Your task to perform on an android device: How do I get to the nearest Burger King? Image 0: 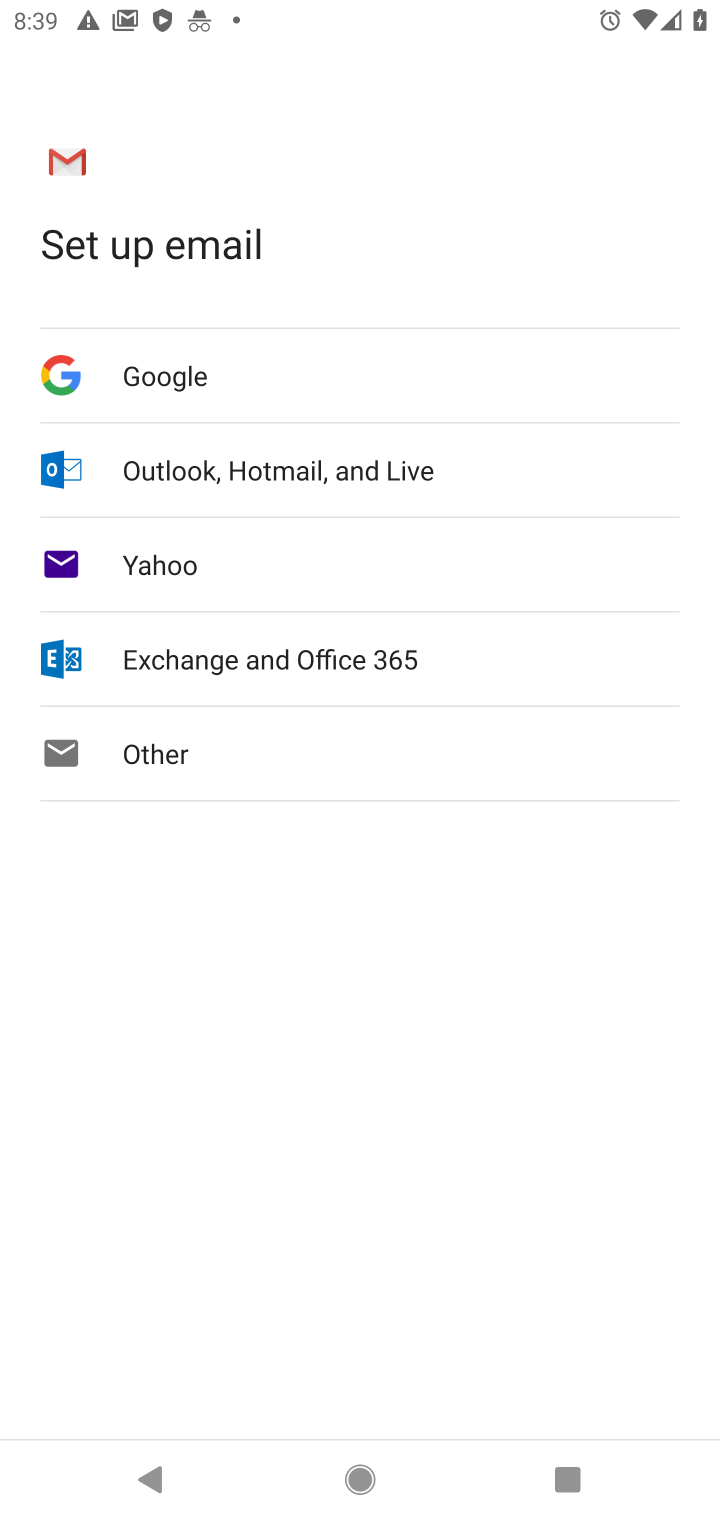
Step 0: press home button
Your task to perform on an android device: How do I get to the nearest Burger King? Image 1: 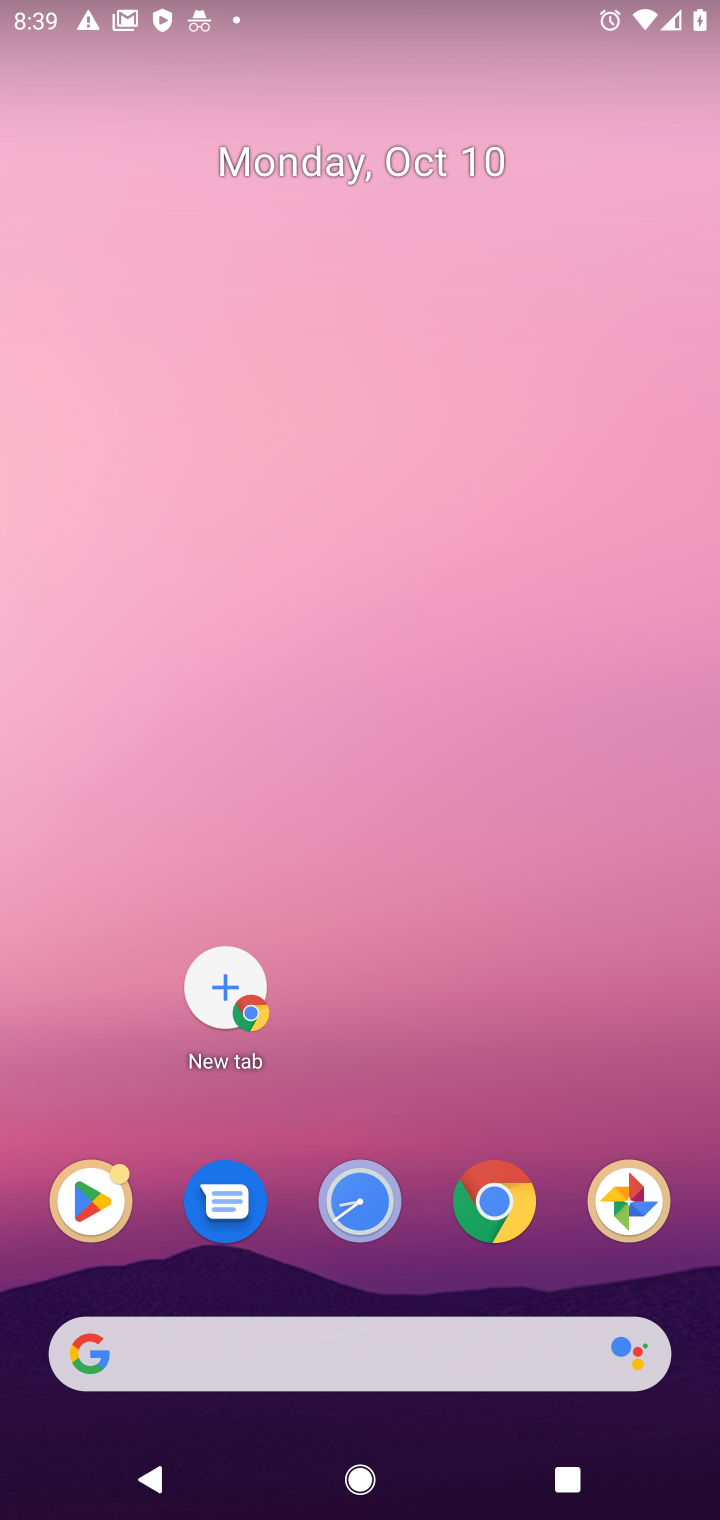
Step 1: click (238, 1006)
Your task to perform on an android device: How do I get to the nearest Burger King? Image 2: 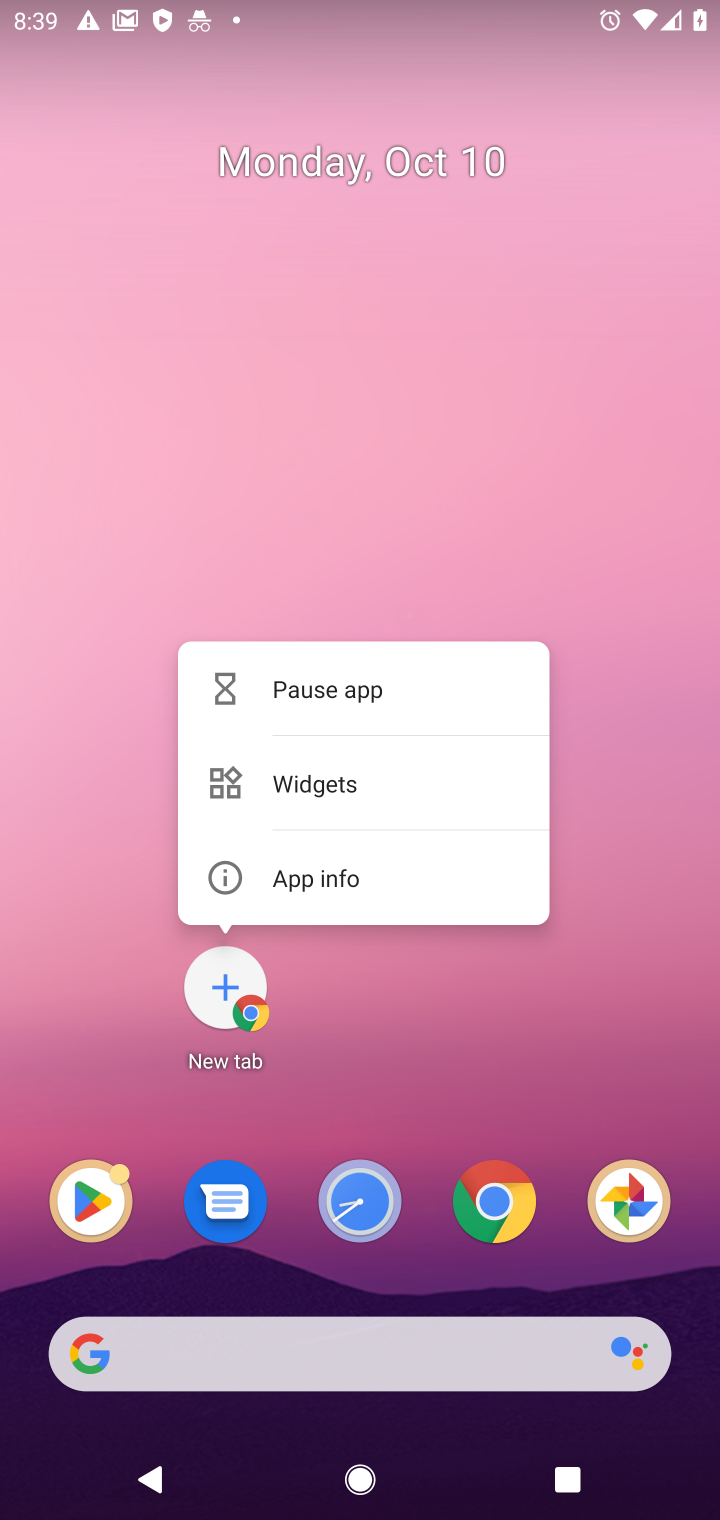
Step 2: click (533, 1014)
Your task to perform on an android device: How do I get to the nearest Burger King? Image 3: 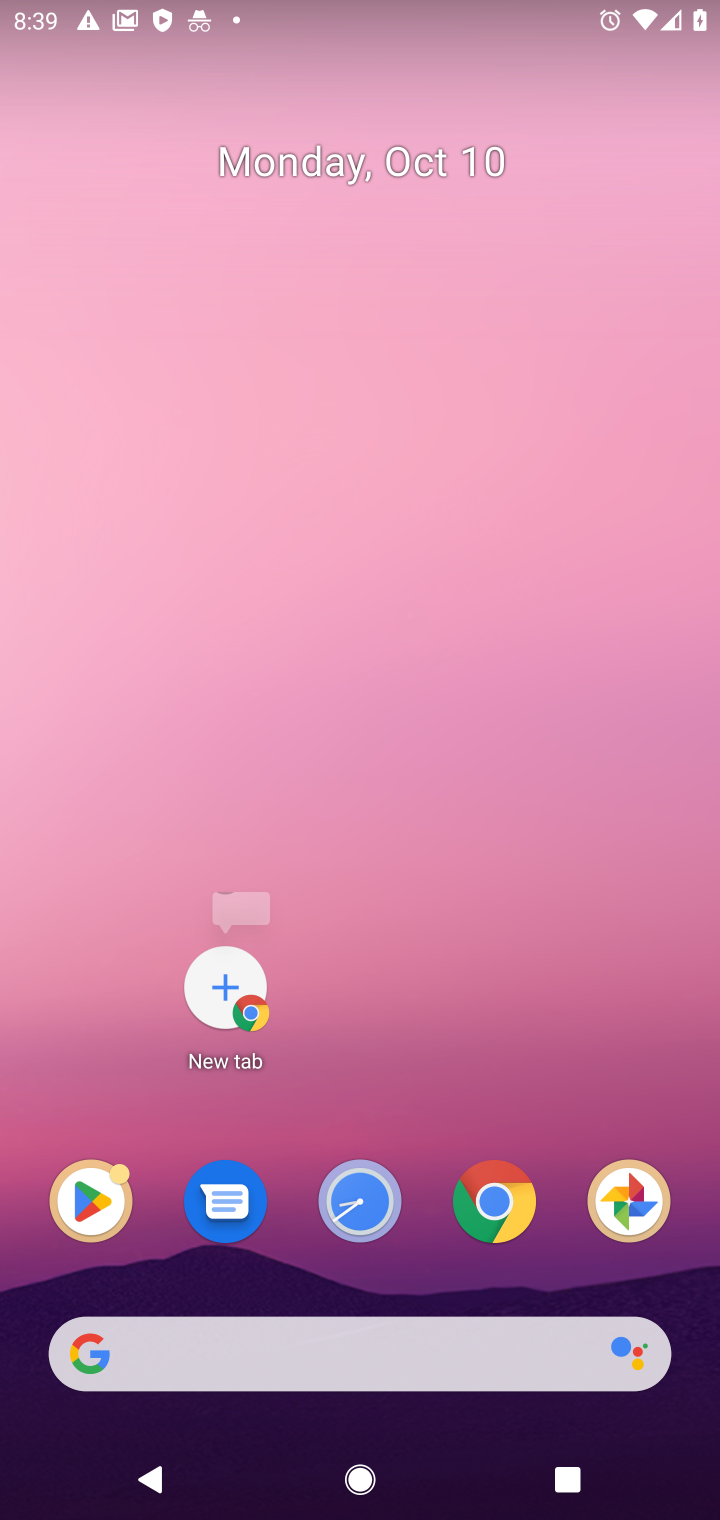
Step 3: drag from (417, 167) to (417, 4)
Your task to perform on an android device: How do I get to the nearest Burger King? Image 4: 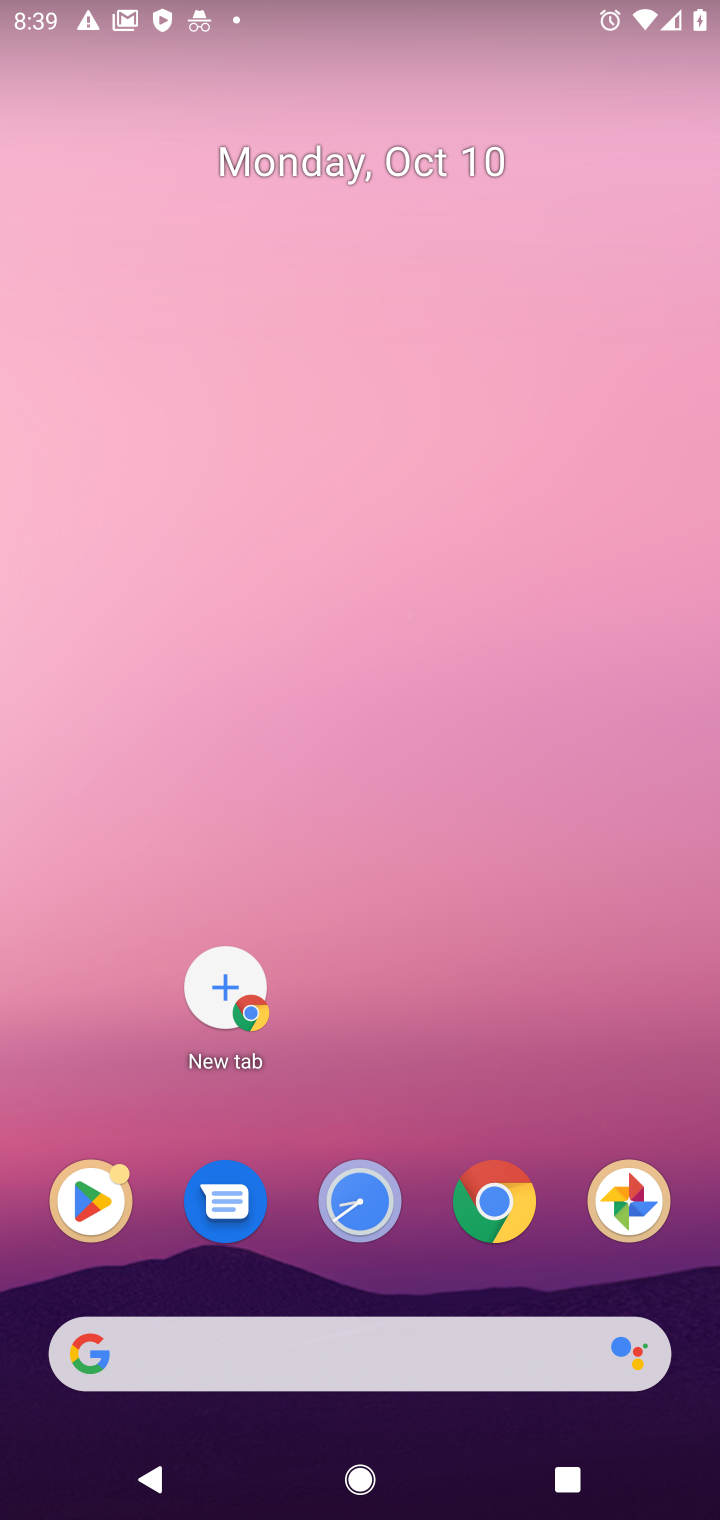
Step 4: drag from (373, 1191) to (497, 47)
Your task to perform on an android device: How do I get to the nearest Burger King? Image 5: 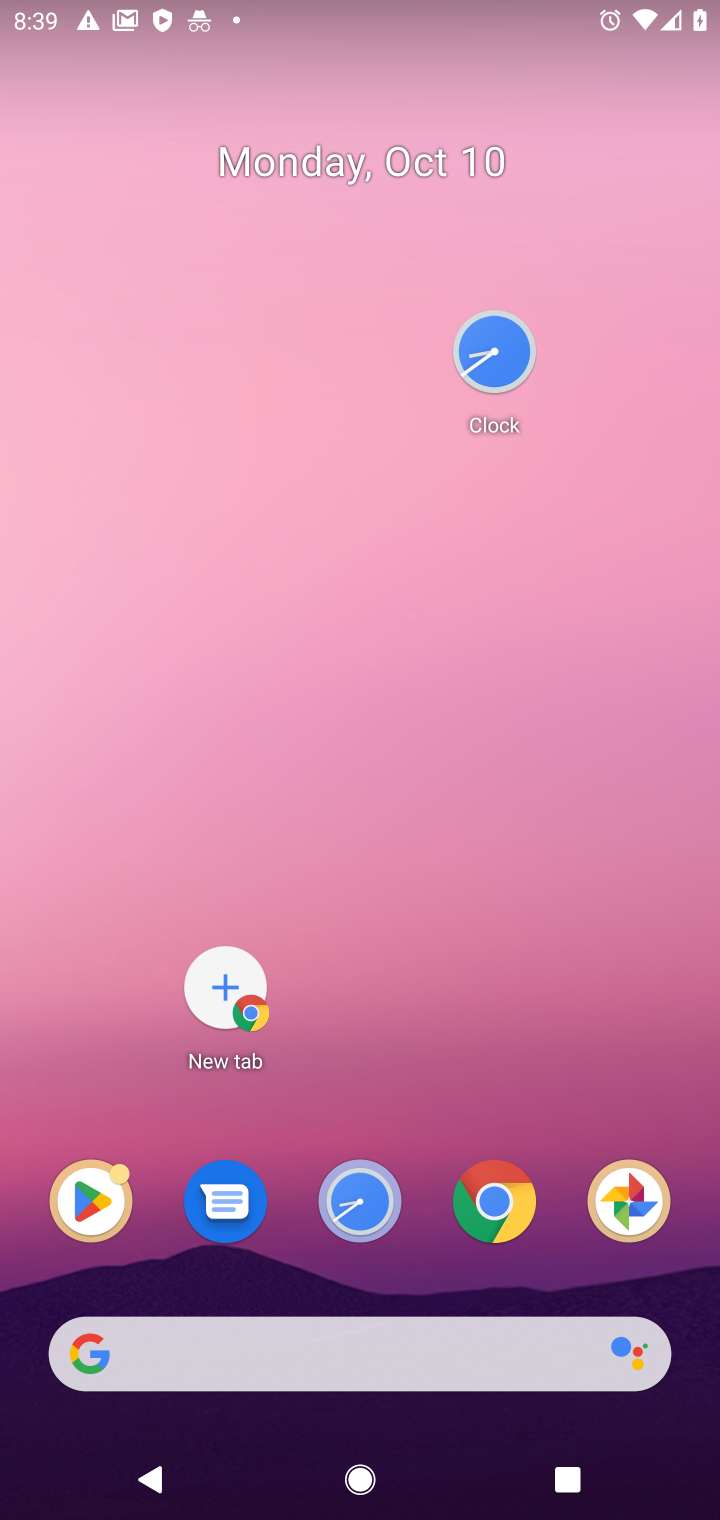
Step 5: drag from (357, 1244) to (540, 5)
Your task to perform on an android device: How do I get to the nearest Burger King? Image 6: 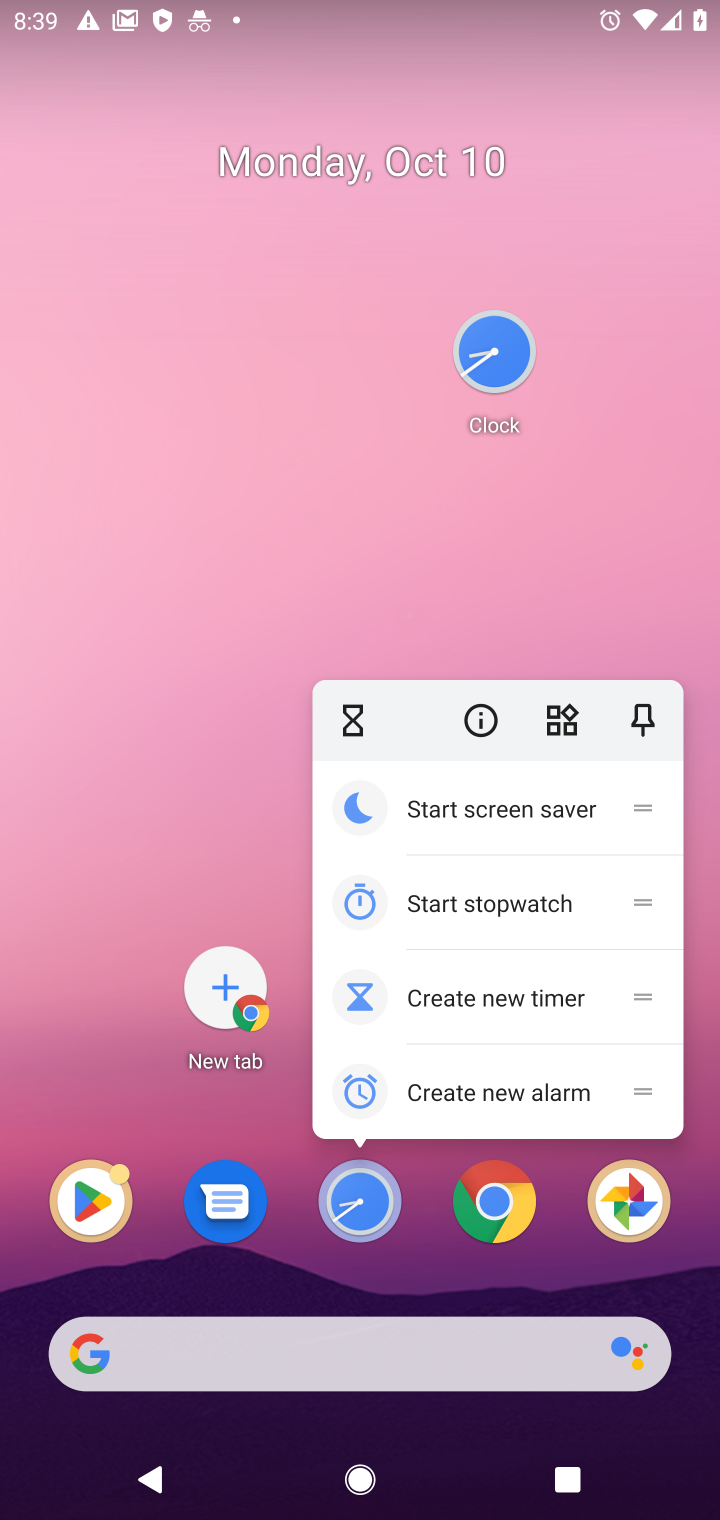
Step 6: click (183, 635)
Your task to perform on an android device: How do I get to the nearest Burger King? Image 7: 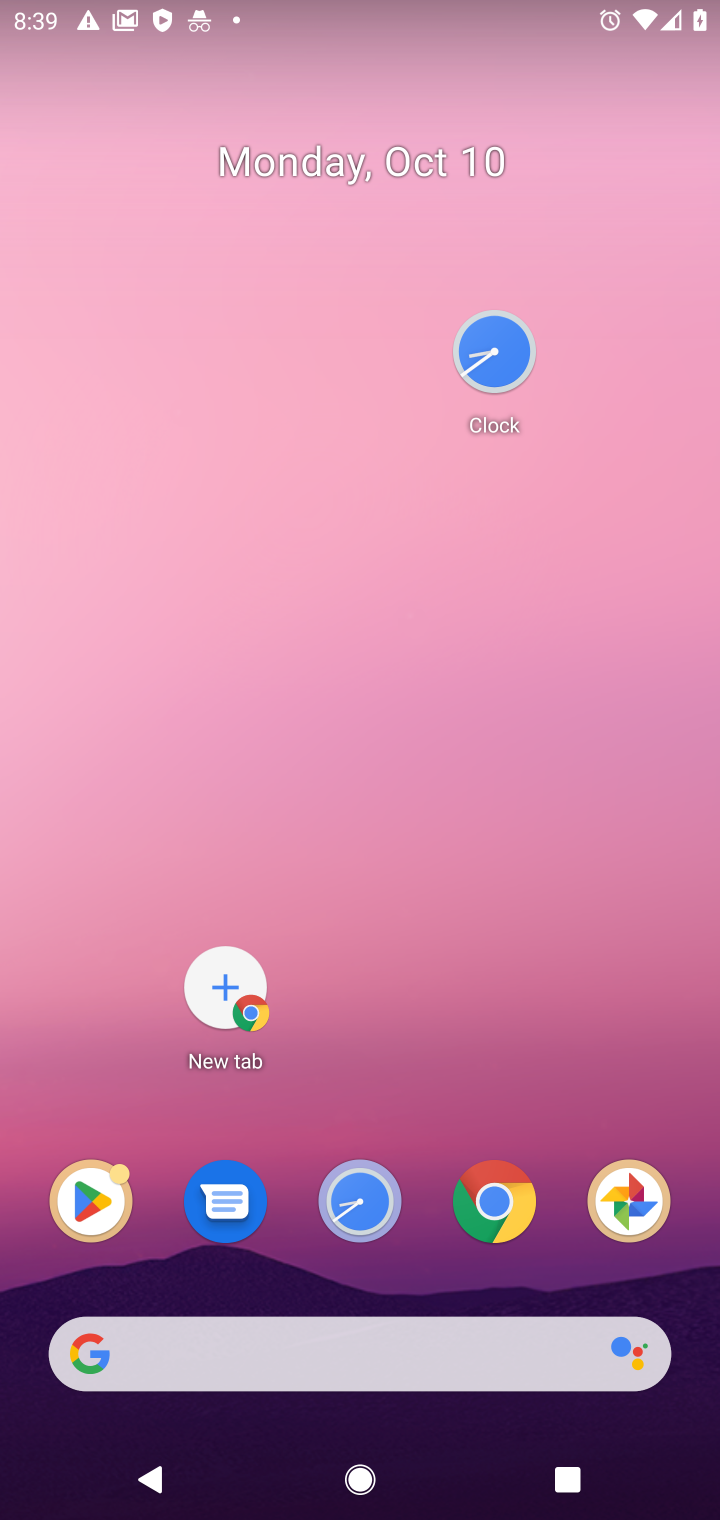
Step 7: click (489, 1213)
Your task to perform on an android device: How do I get to the nearest Burger King? Image 8: 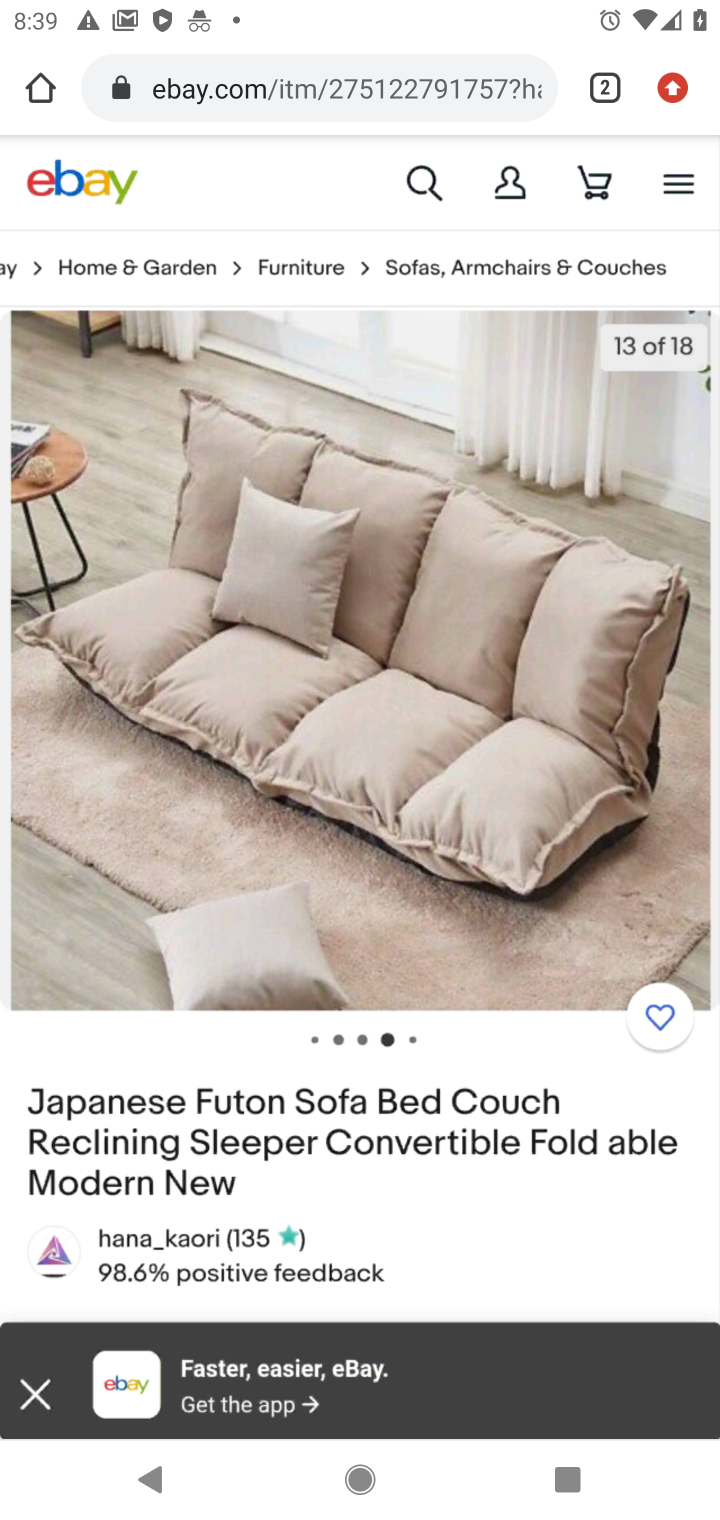
Step 8: click (457, 94)
Your task to perform on an android device: How do I get to the nearest Burger King? Image 9: 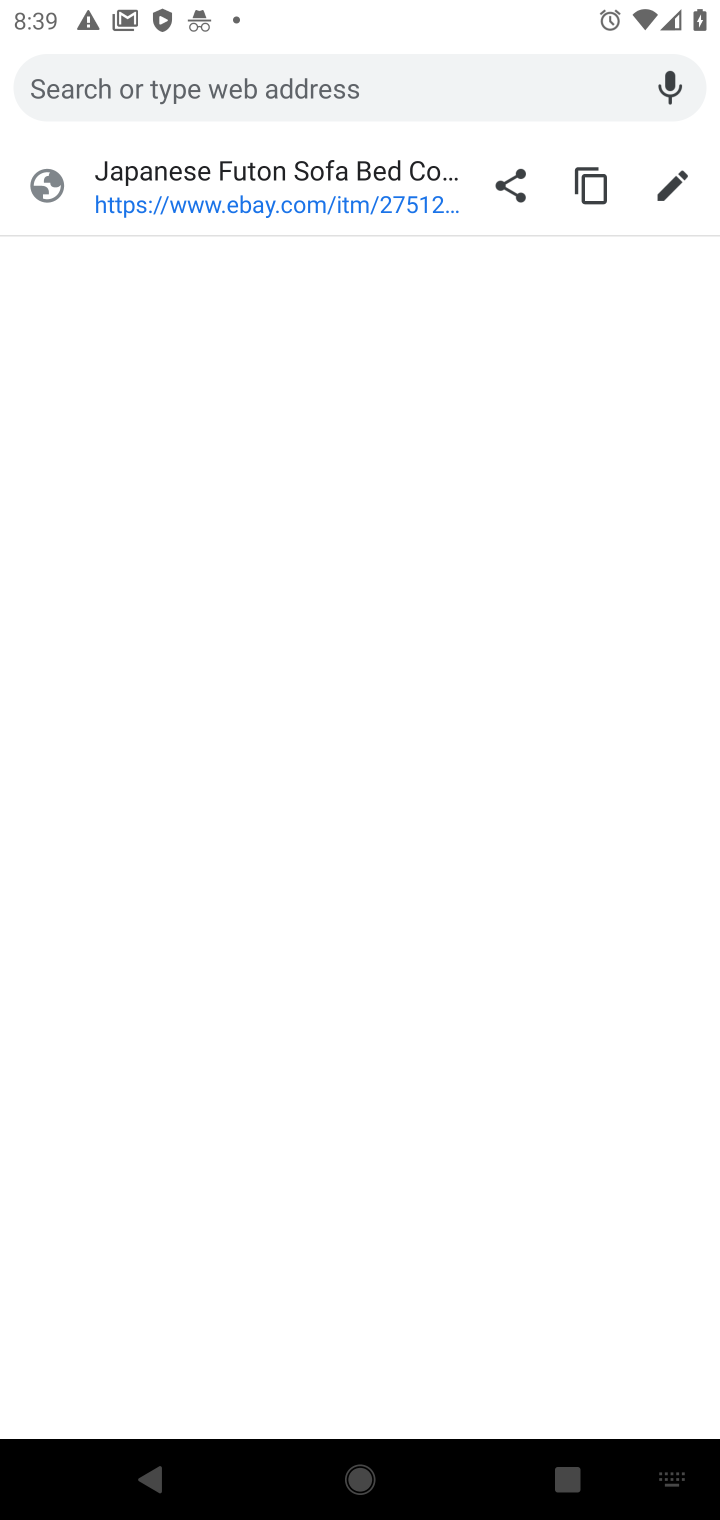
Step 9: type "How do I get to the nearest Burger King?"
Your task to perform on an android device: How do I get to the nearest Burger King? Image 10: 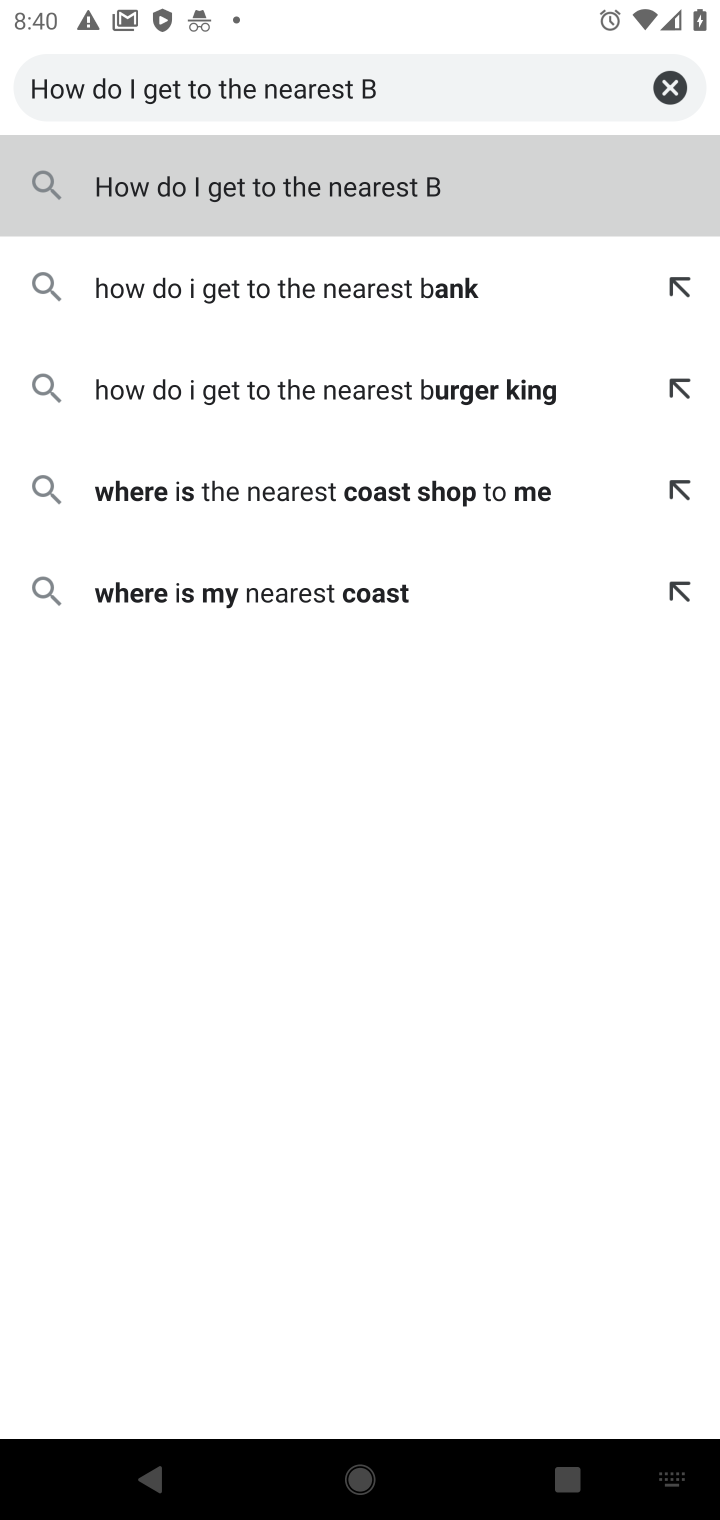
Step 10: press enter
Your task to perform on an android device: How do I get to the nearest Burger King? Image 11: 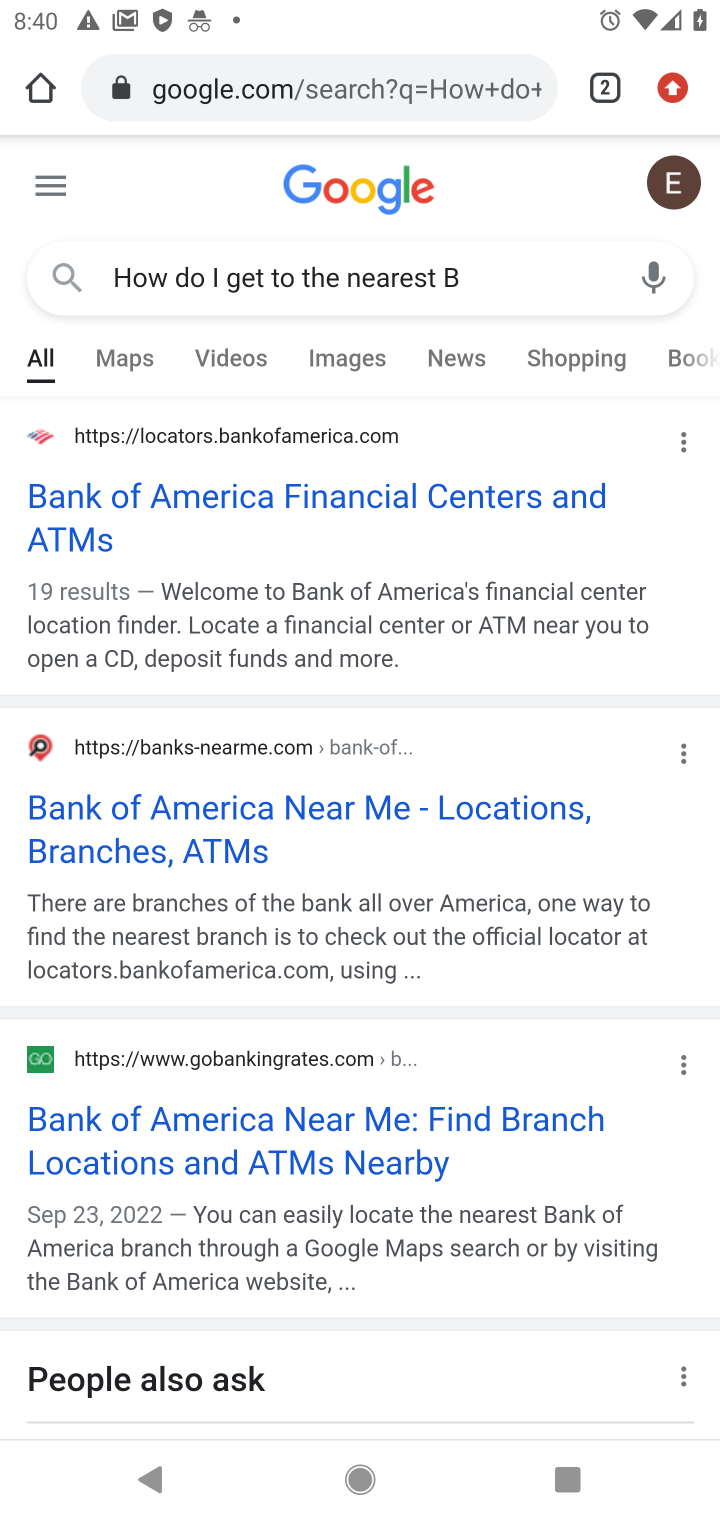
Step 11: click (457, 257)
Your task to perform on an android device: How do I get to the nearest Burger King? Image 12: 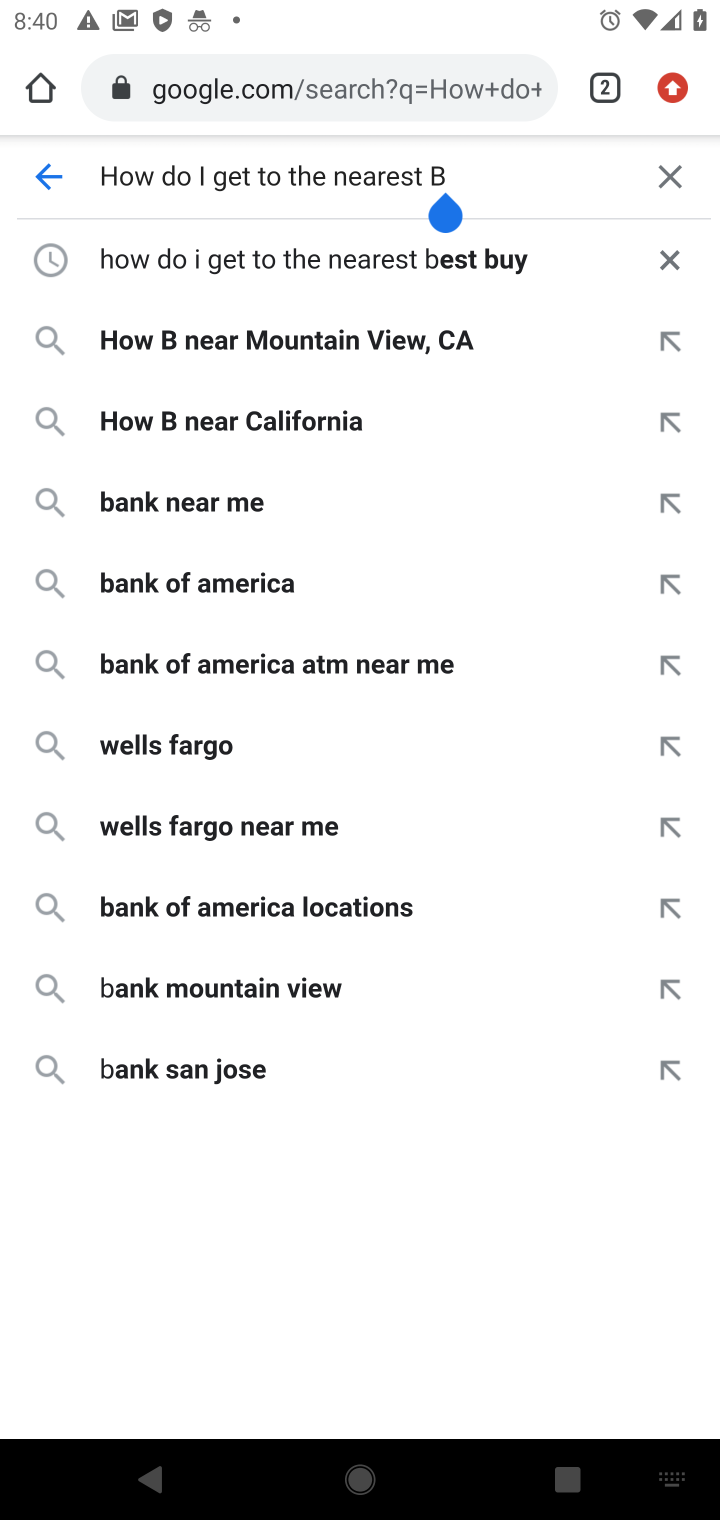
Step 12: click (674, 167)
Your task to perform on an android device: How do I get to the nearest Burger King? Image 13: 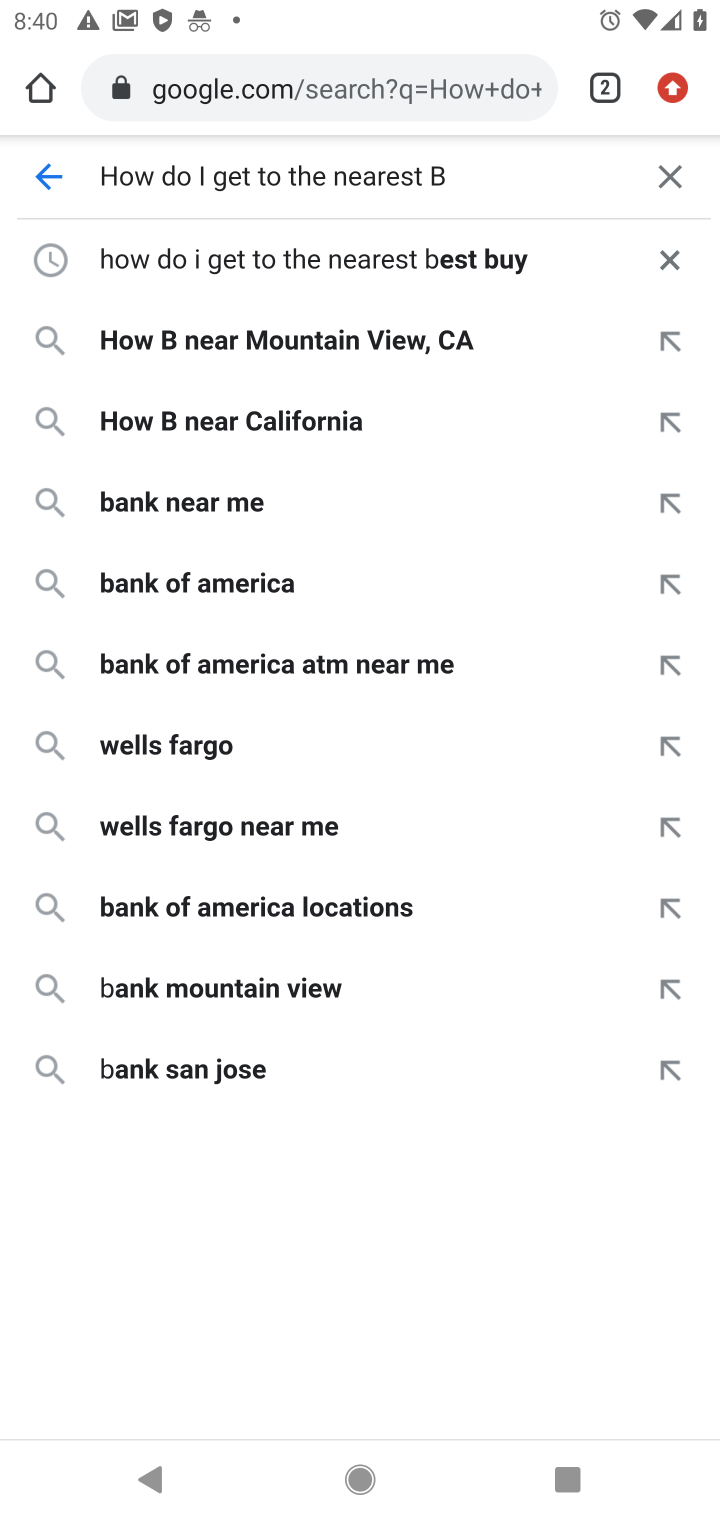
Step 13: click (480, 89)
Your task to perform on an android device: How do I get to the nearest Burger King? Image 14: 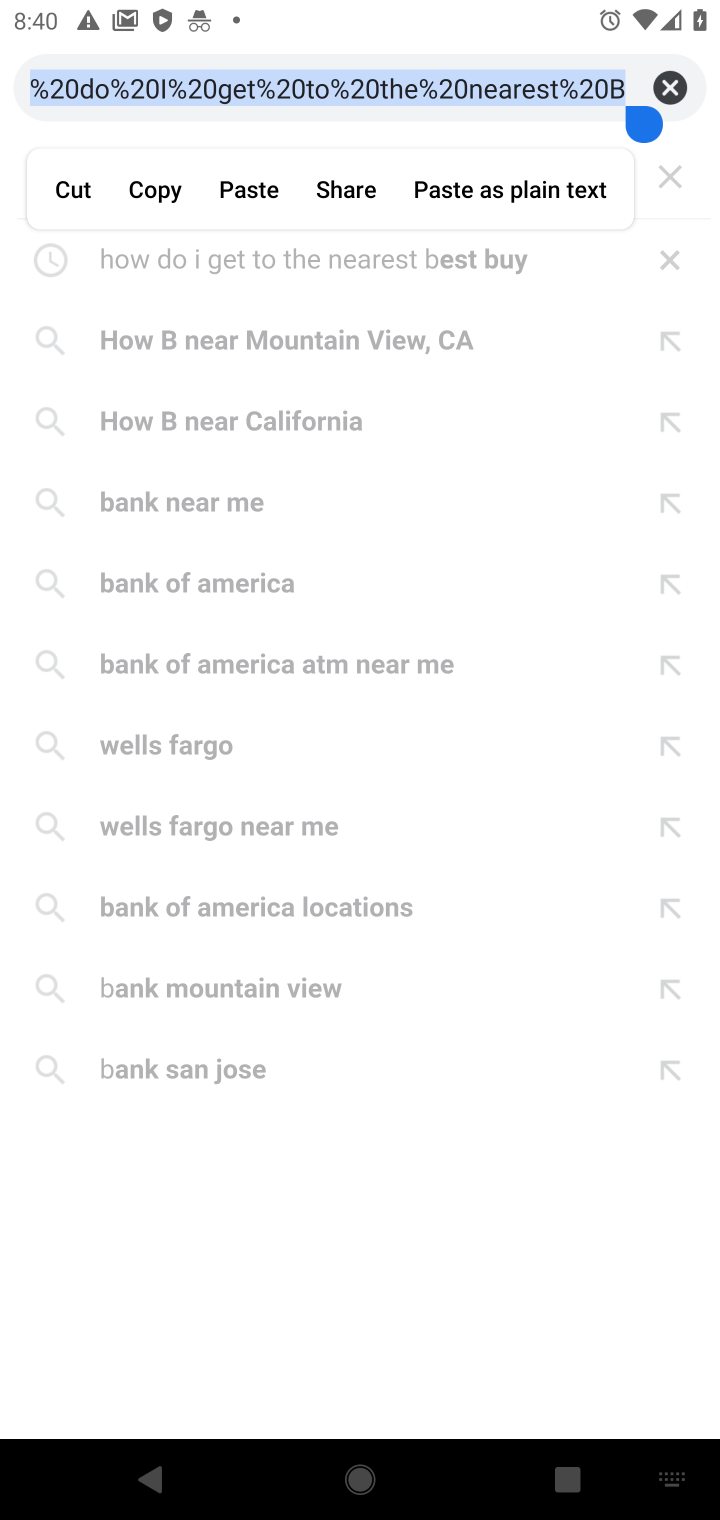
Step 14: type "How do I get to the nearest Burger King?"
Your task to perform on an android device: How do I get to the nearest Burger King? Image 15: 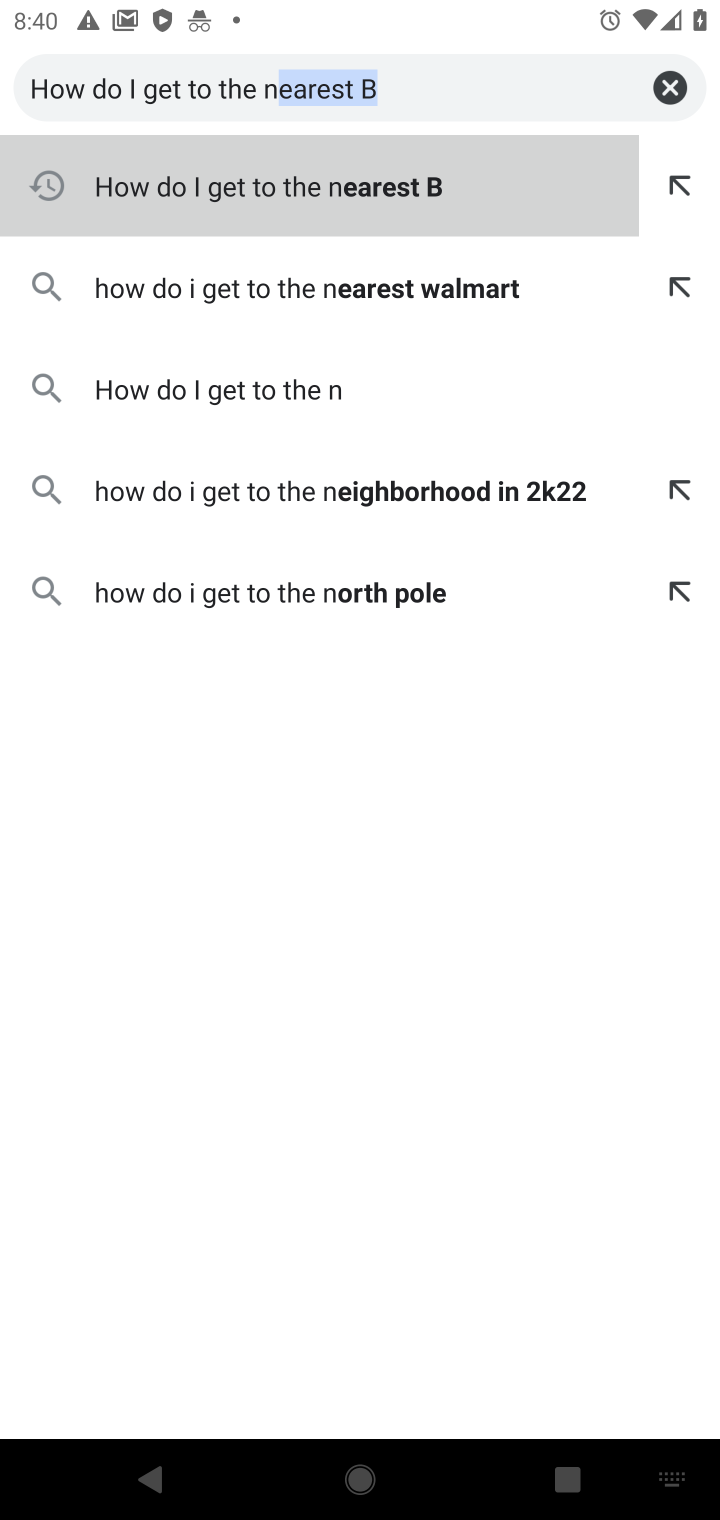
Step 15: type ""
Your task to perform on an android device: How do I get to the nearest Burger King? Image 16: 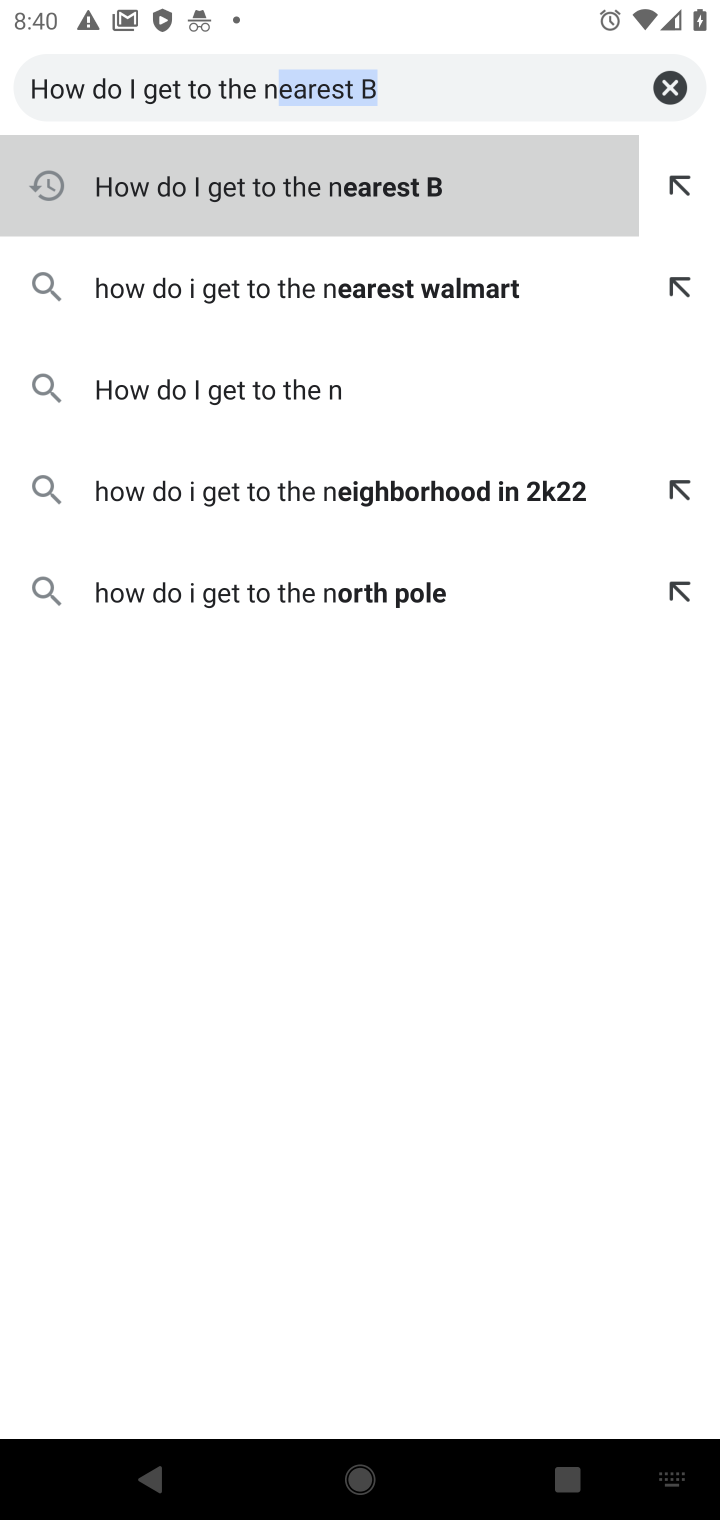
Step 16: click (433, 71)
Your task to perform on an android device: How do I get to the nearest Burger King? Image 17: 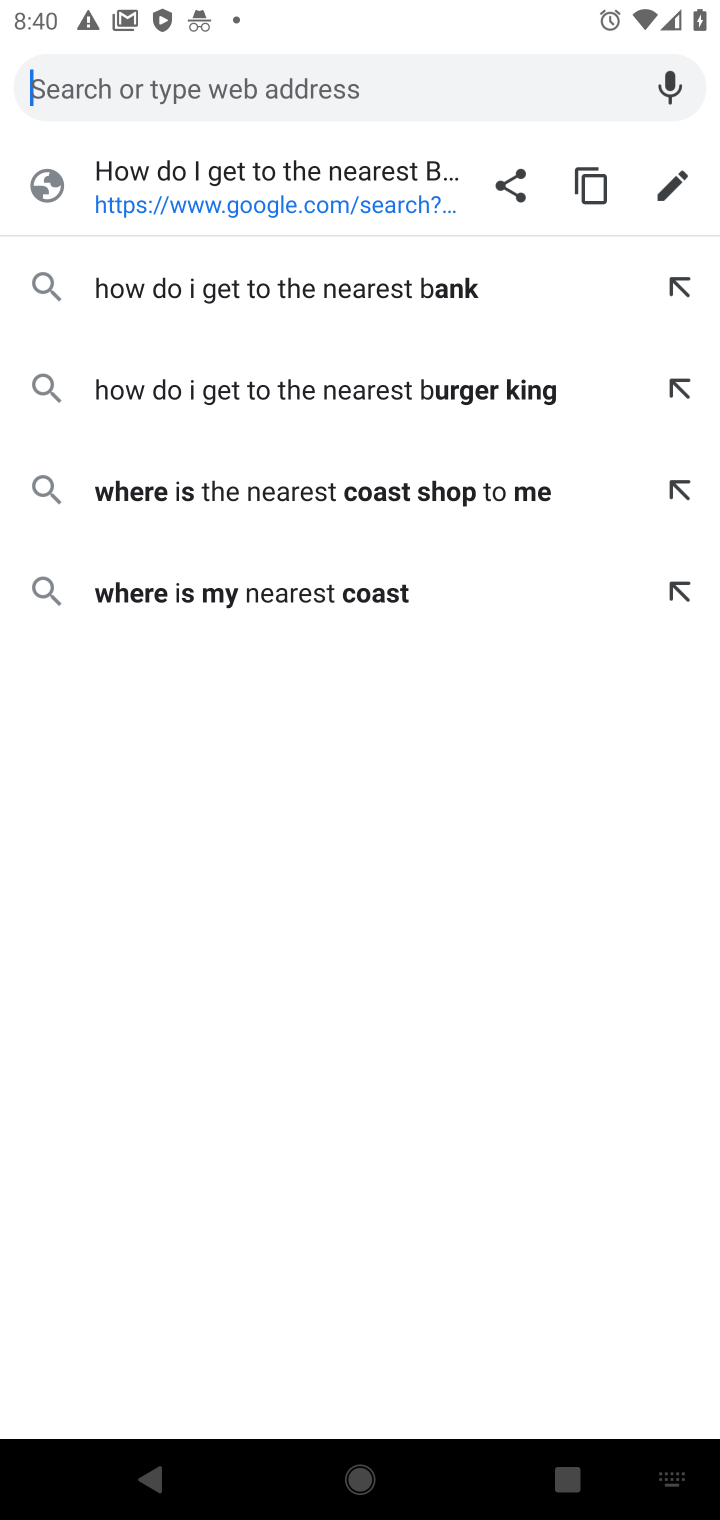
Step 17: click (257, 391)
Your task to perform on an android device: How do I get to the nearest Burger King? Image 18: 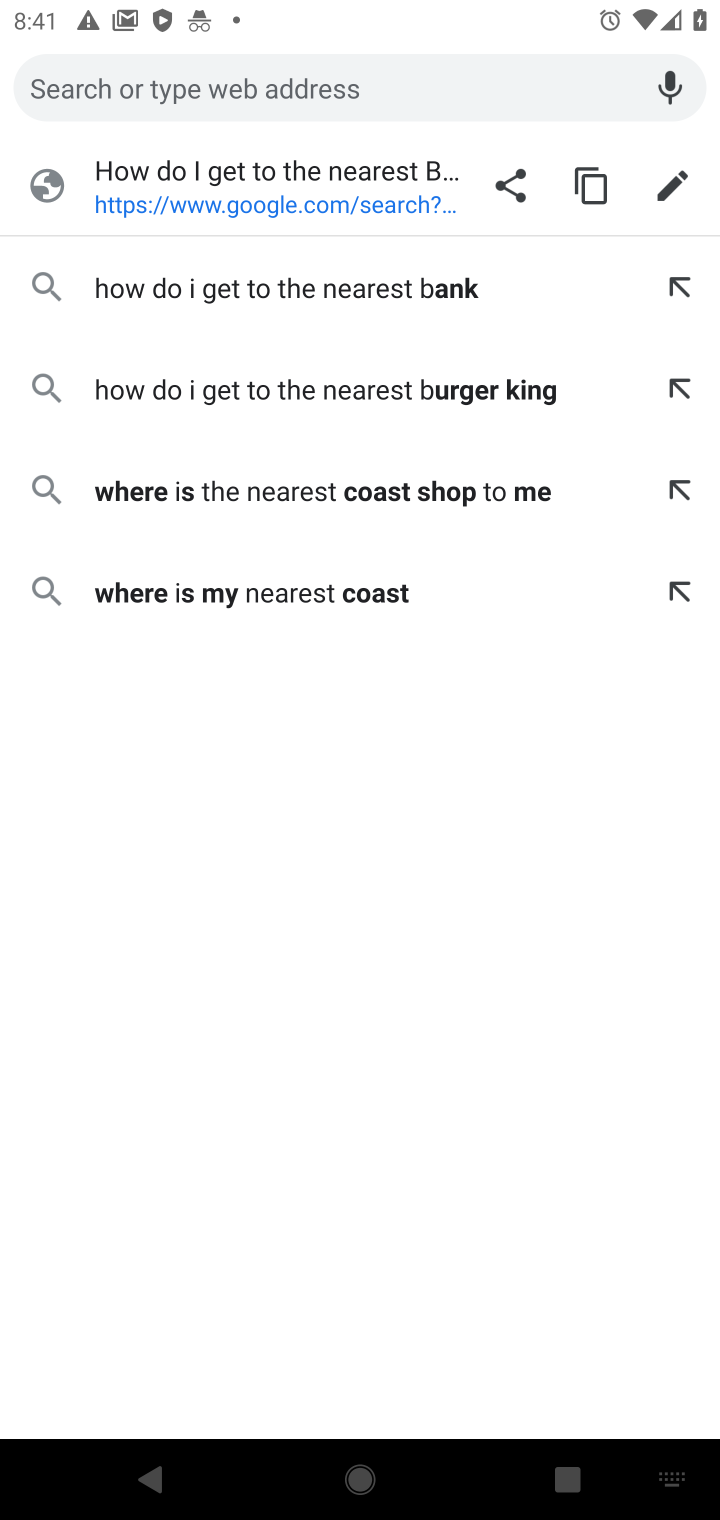
Step 18: click (257, 391)
Your task to perform on an android device: How do I get to the nearest Burger King? Image 19: 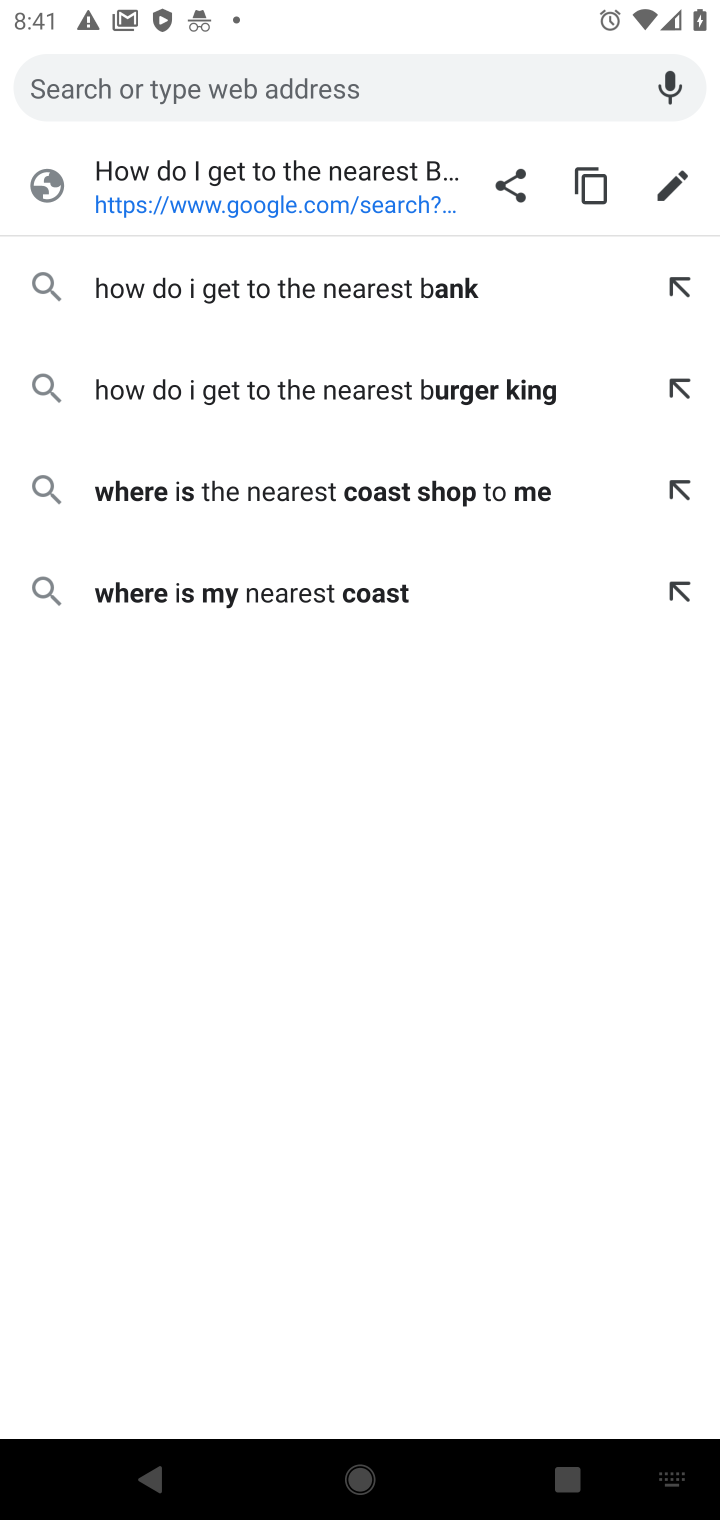
Step 19: click (578, 388)
Your task to perform on an android device: How do I get to the nearest Burger King? Image 20: 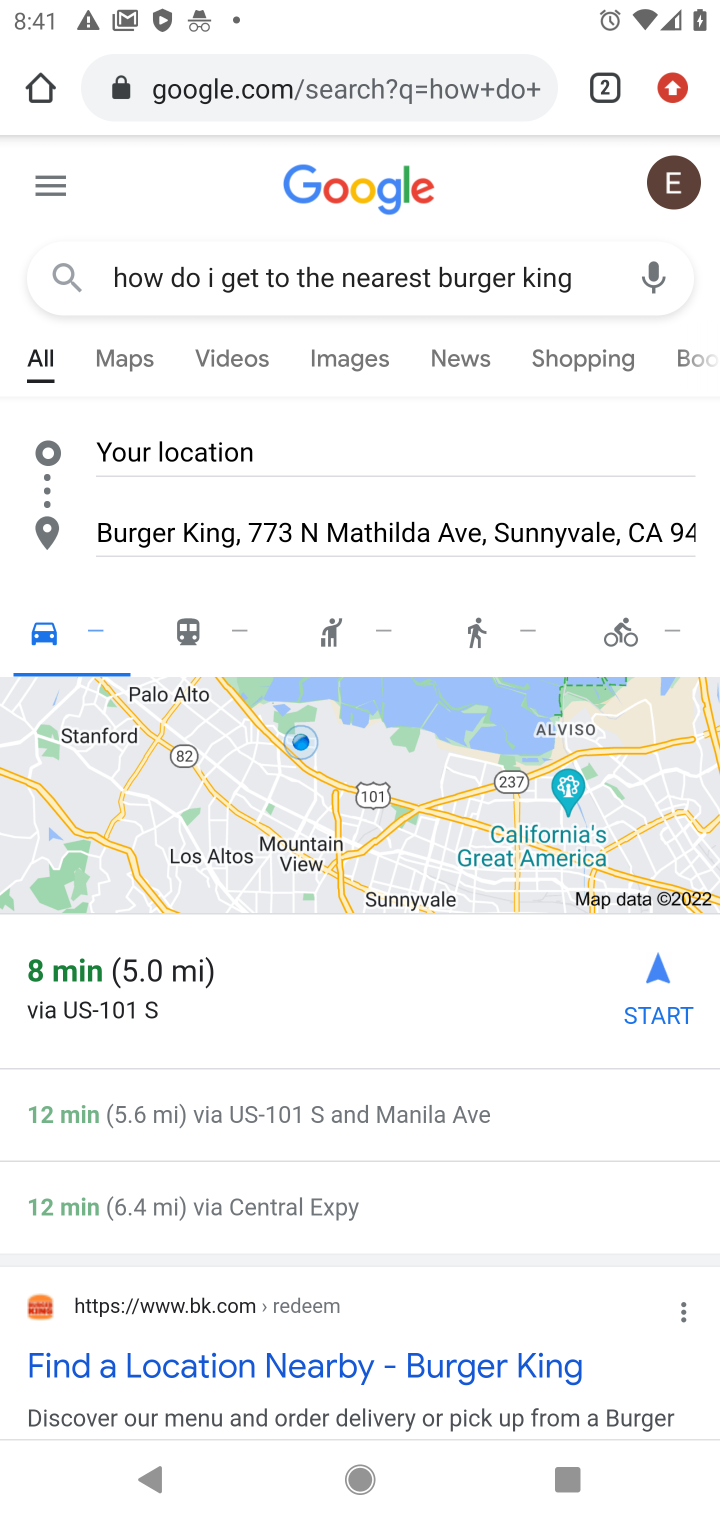
Step 20: drag from (495, 615) to (464, 427)
Your task to perform on an android device: How do I get to the nearest Burger King? Image 21: 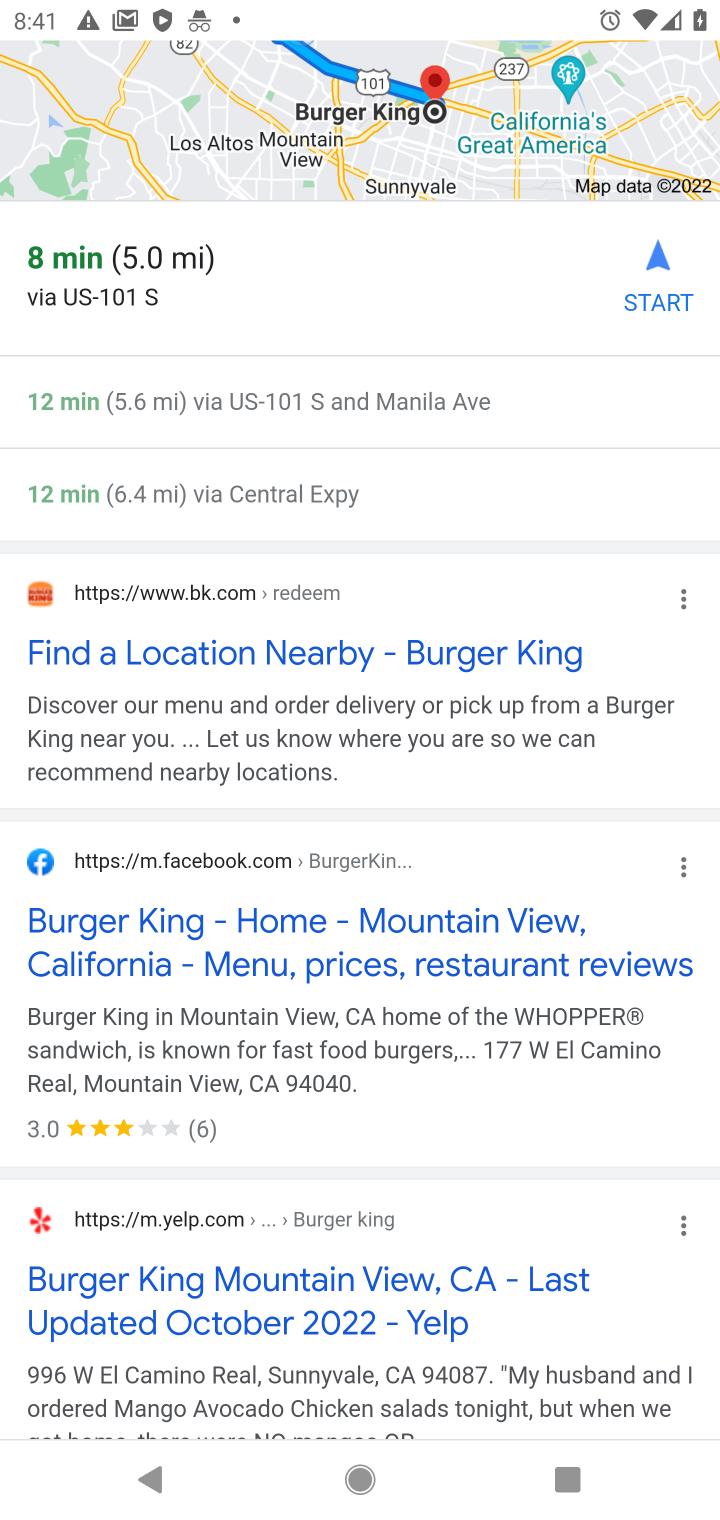
Step 21: drag from (350, 1124) to (439, 301)
Your task to perform on an android device: How do I get to the nearest Burger King? Image 22: 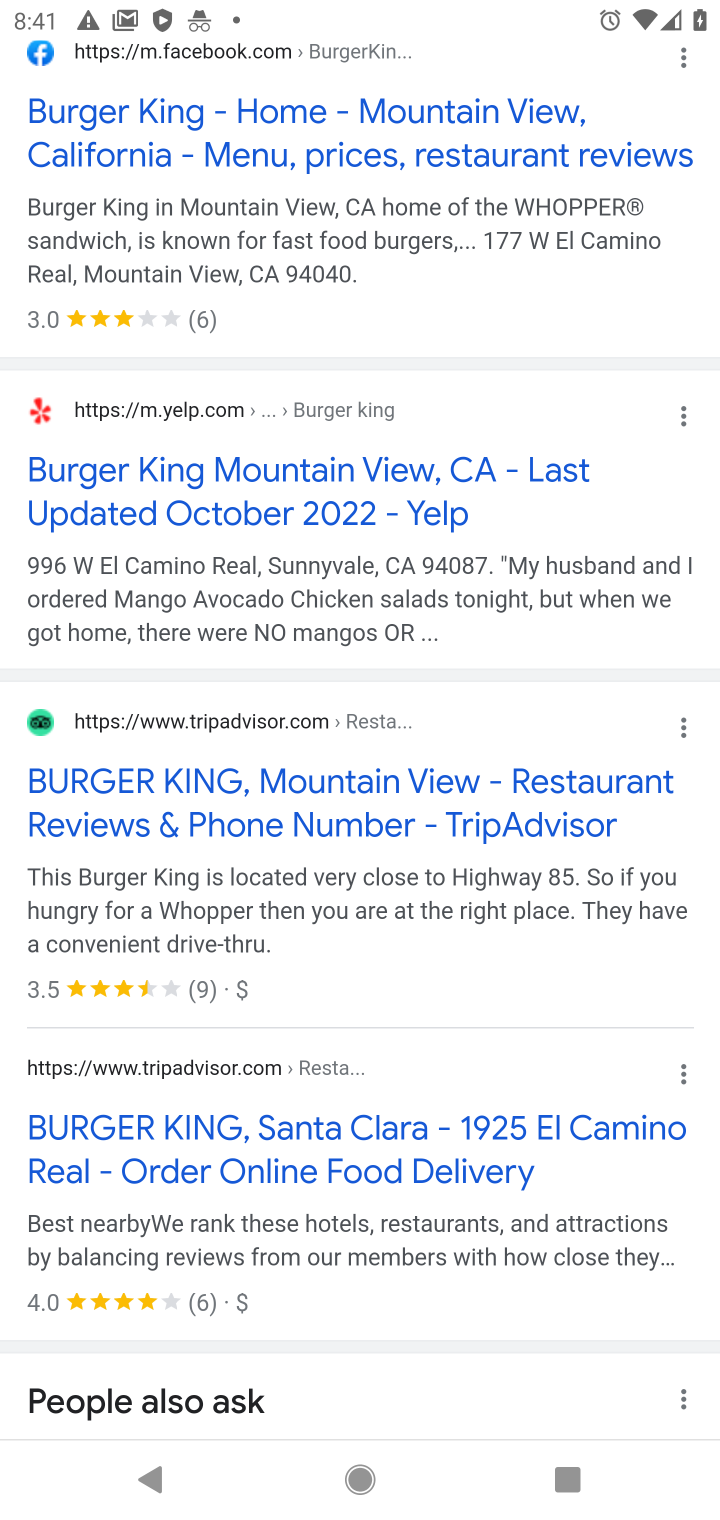
Step 22: drag from (295, 709) to (312, 495)
Your task to perform on an android device: How do I get to the nearest Burger King? Image 23: 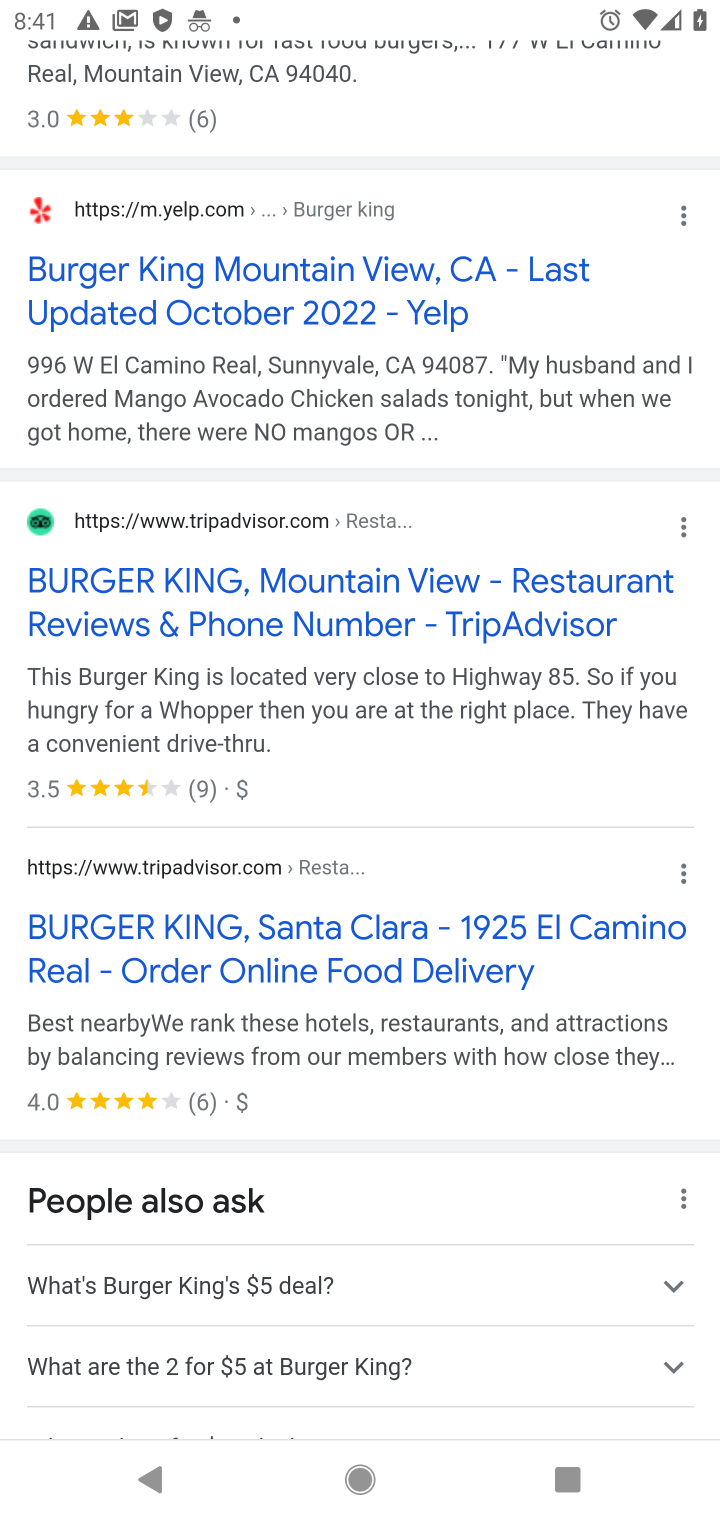
Step 23: click (262, 611)
Your task to perform on an android device: How do I get to the nearest Burger King? Image 24: 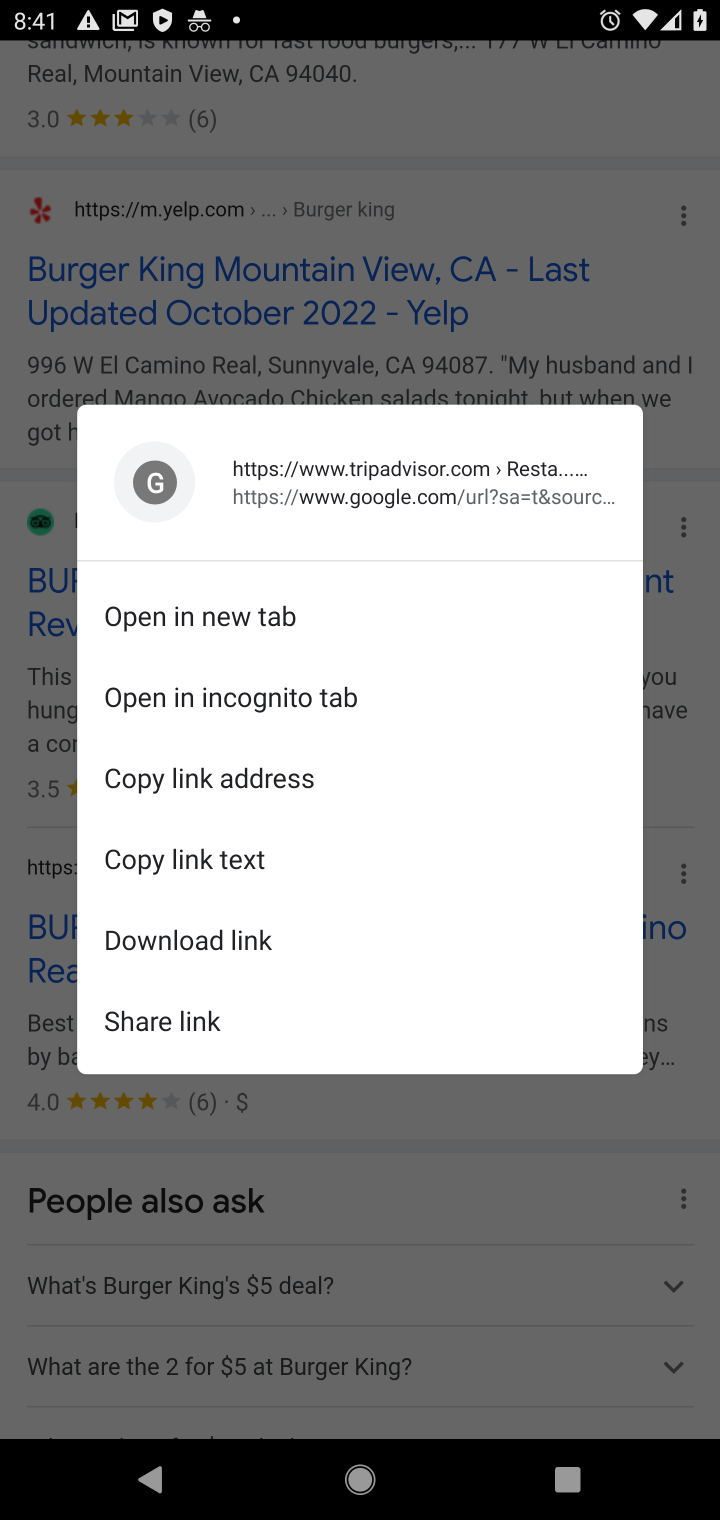
Step 24: click (367, 353)
Your task to perform on an android device: How do I get to the nearest Burger King? Image 25: 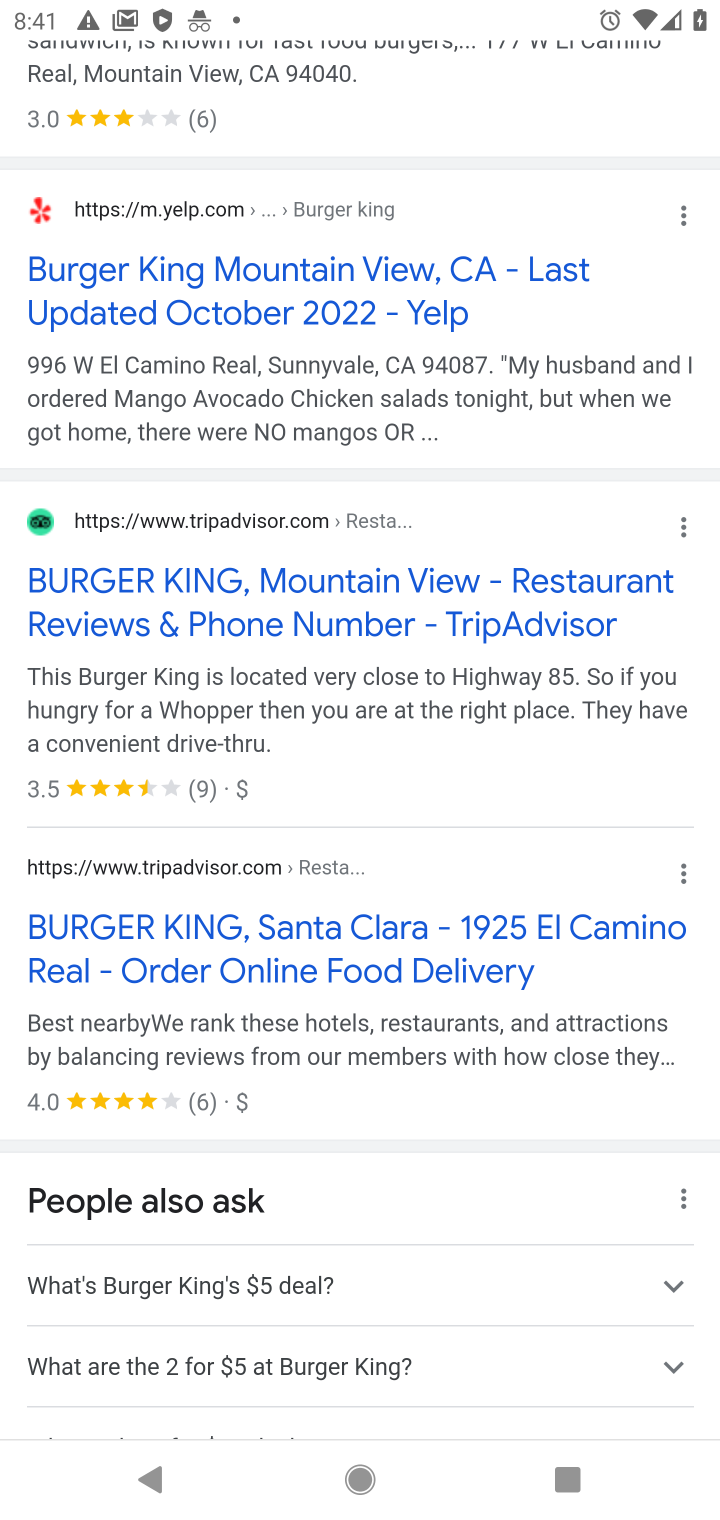
Step 25: click (336, 314)
Your task to perform on an android device: How do I get to the nearest Burger King? Image 26: 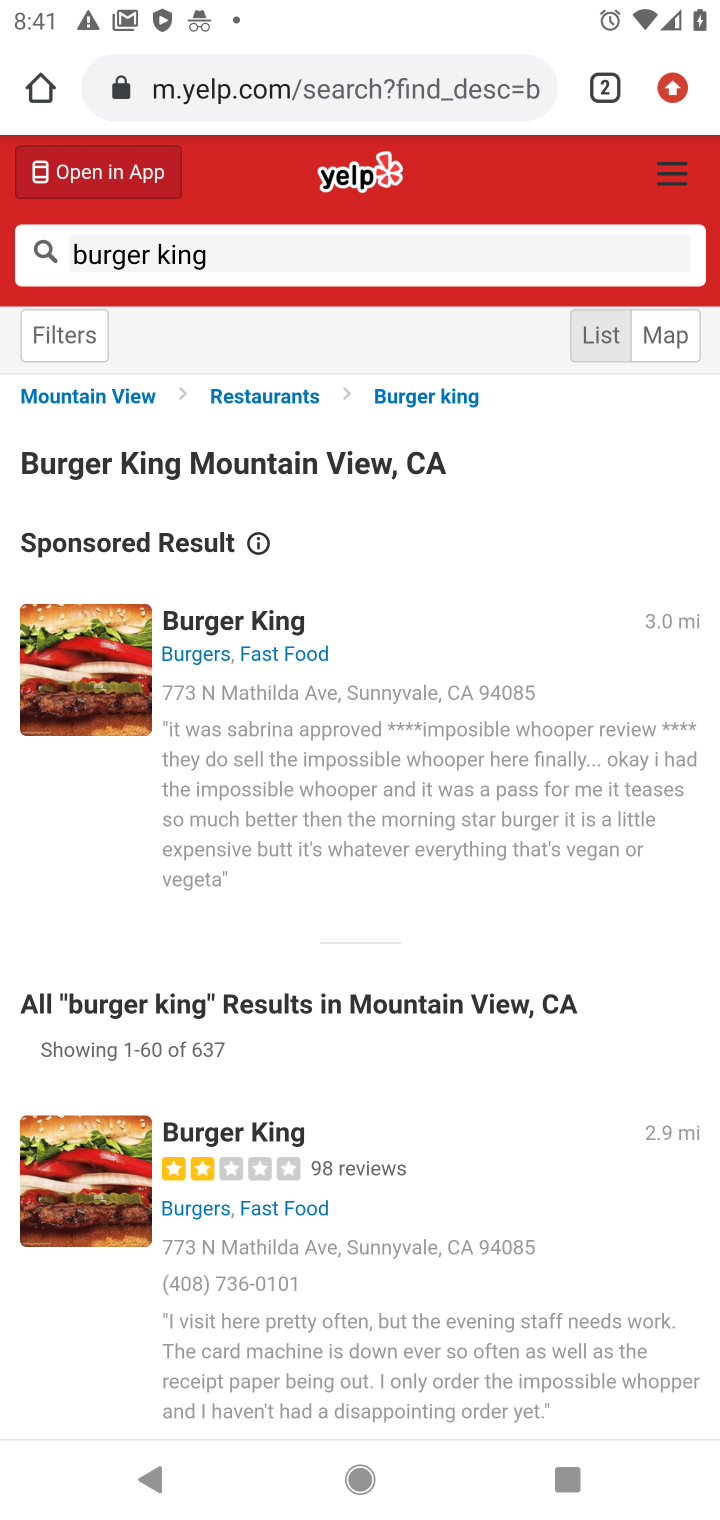
Step 26: drag from (467, 974) to (466, 511)
Your task to perform on an android device: How do I get to the nearest Burger King? Image 27: 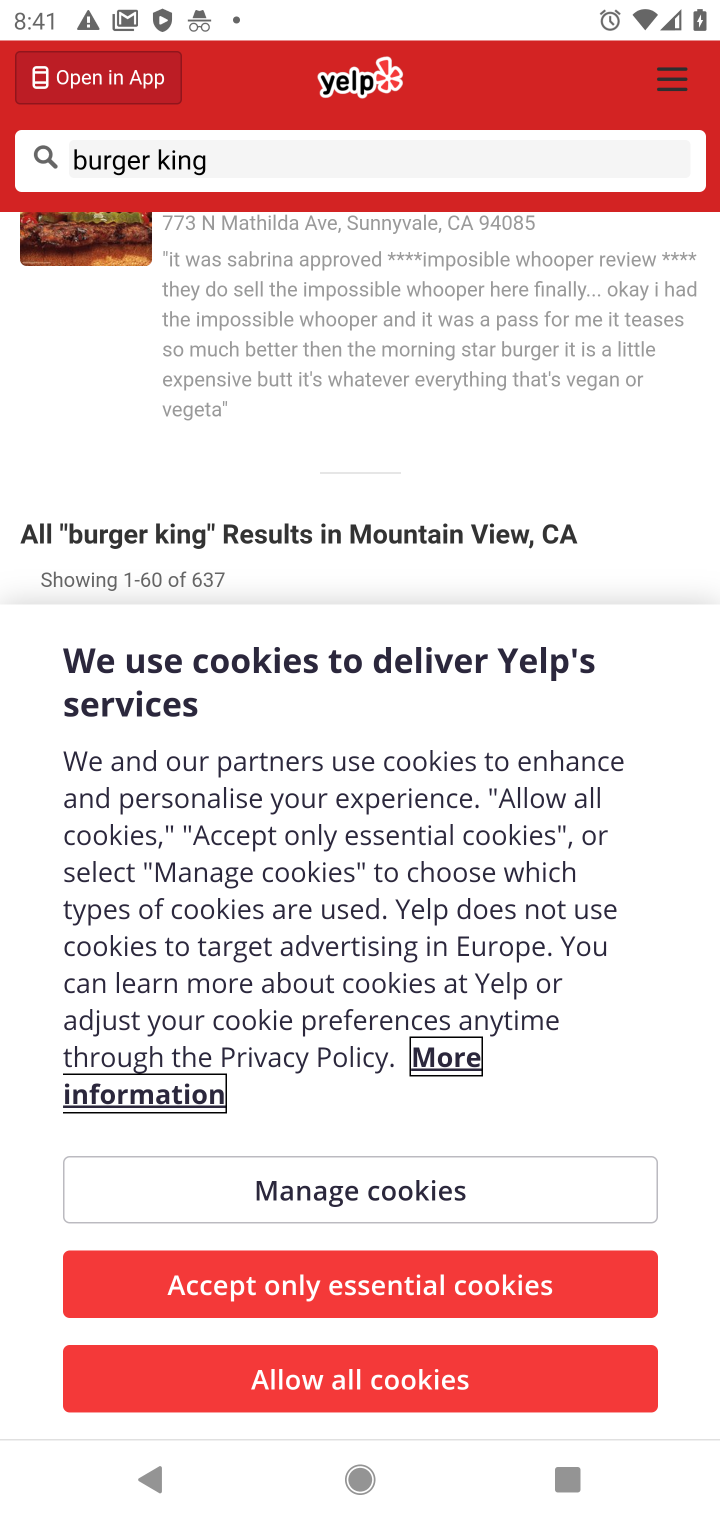
Step 27: drag from (387, 1150) to (395, 568)
Your task to perform on an android device: How do I get to the nearest Burger King? Image 28: 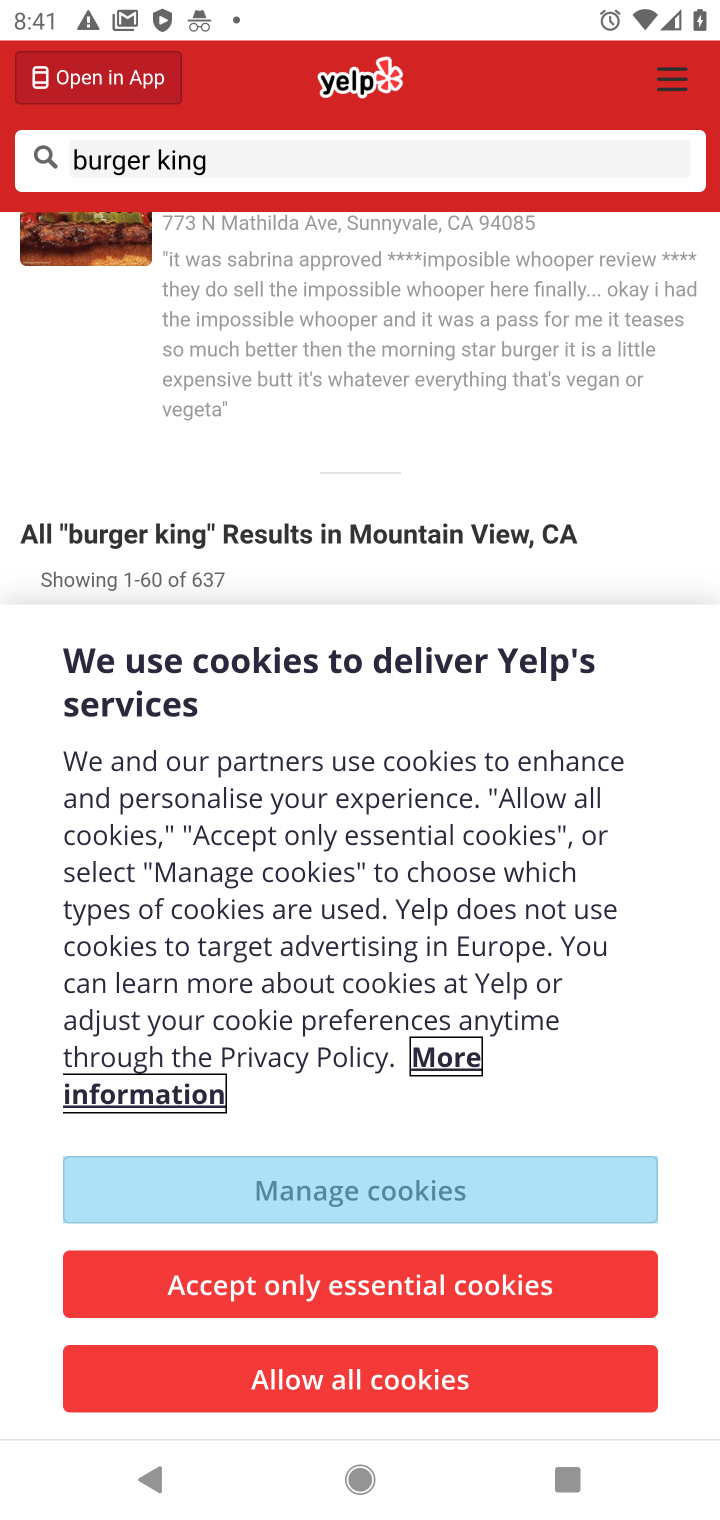
Step 28: click (266, 1406)
Your task to perform on an android device: How do I get to the nearest Burger King? Image 29: 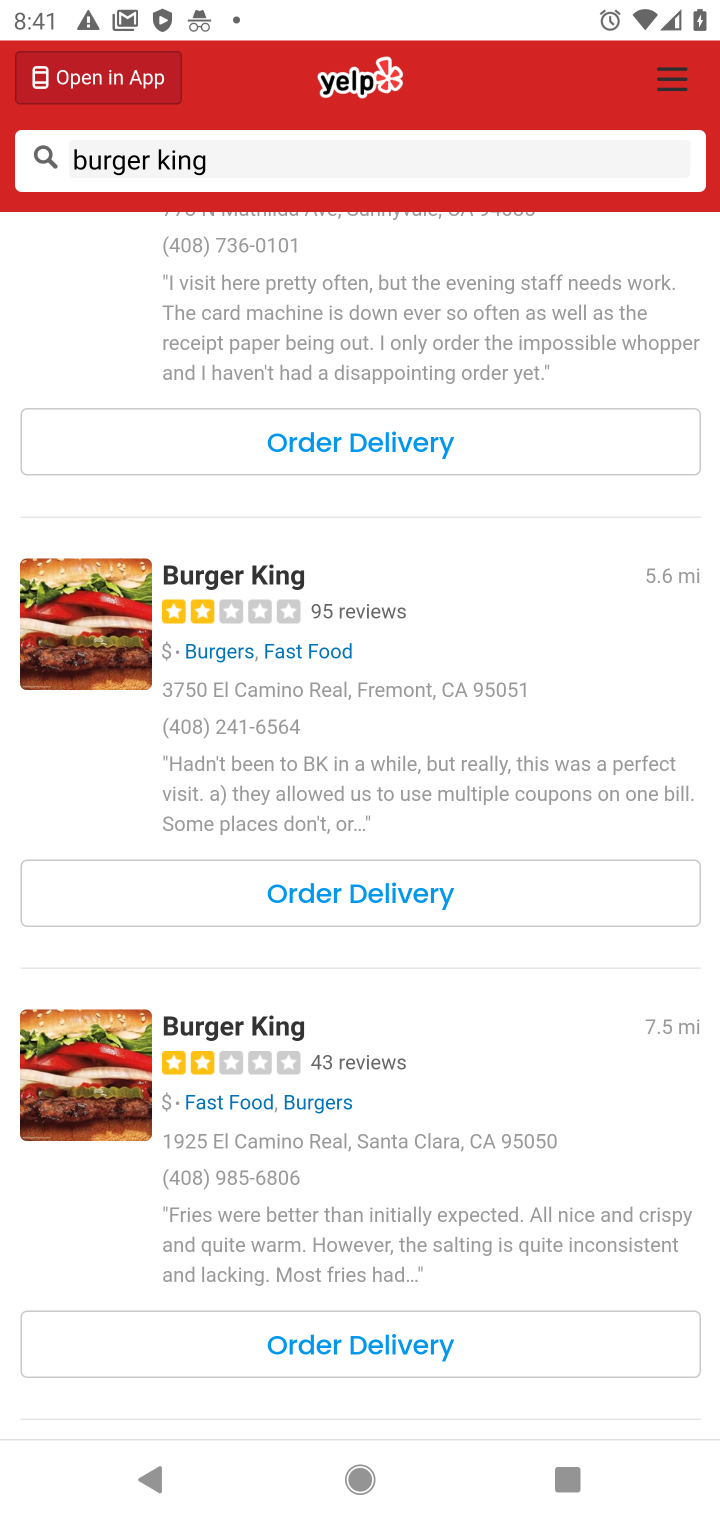
Step 29: task complete